Your task to perform on an android device: add a contact in the contacts app Image 0: 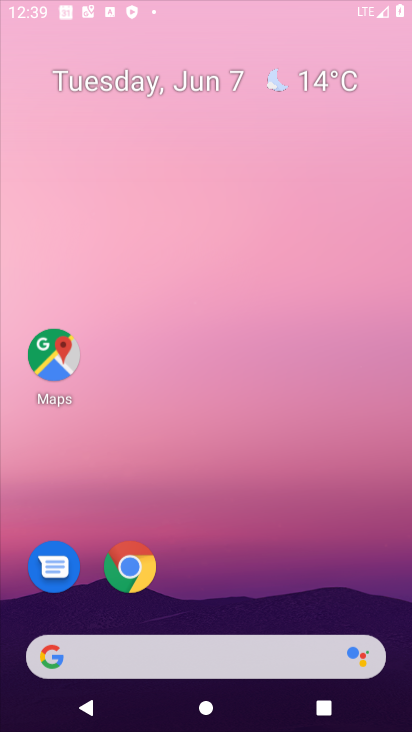
Step 0: press home button
Your task to perform on an android device: add a contact in the contacts app Image 1: 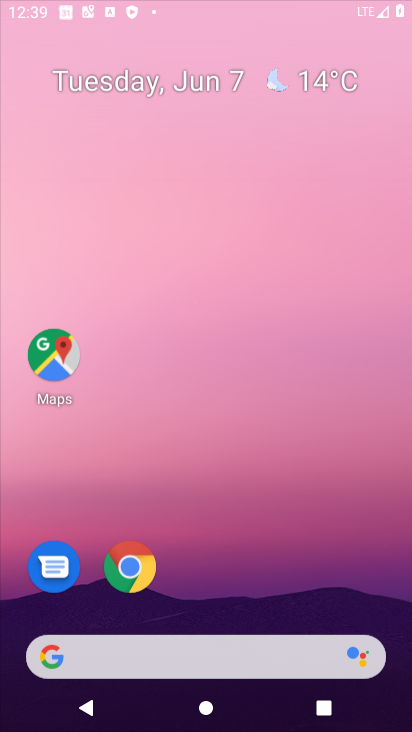
Step 1: click (337, 119)
Your task to perform on an android device: add a contact in the contacts app Image 2: 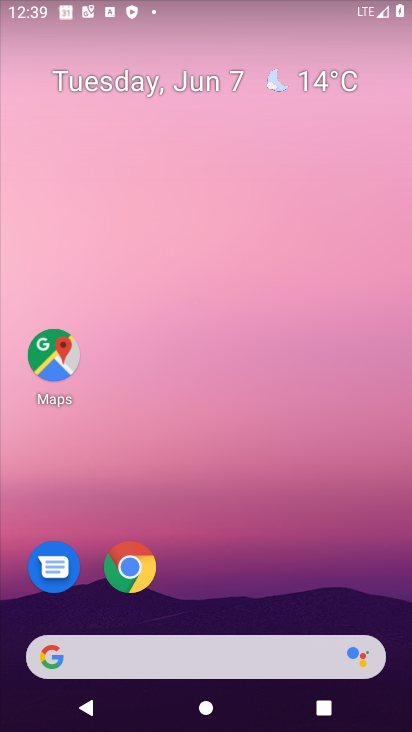
Step 2: drag from (285, 655) to (293, 233)
Your task to perform on an android device: add a contact in the contacts app Image 3: 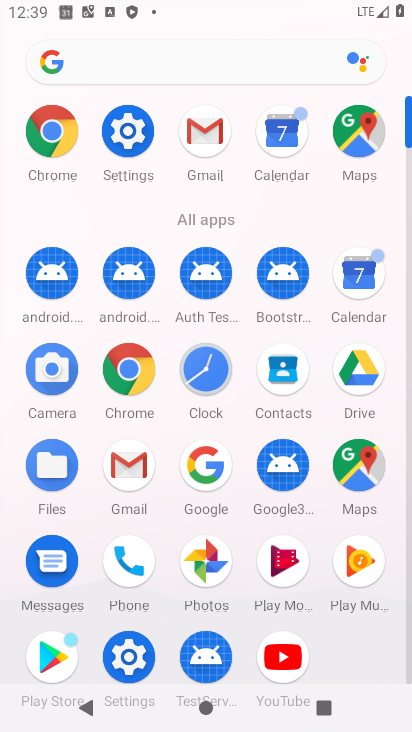
Step 3: click (296, 368)
Your task to perform on an android device: add a contact in the contacts app Image 4: 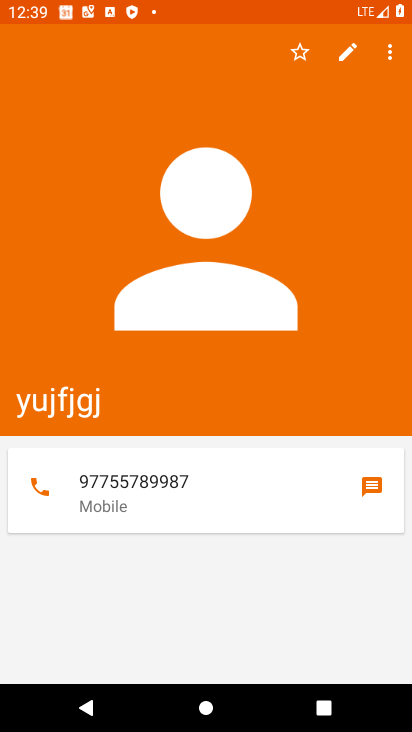
Step 4: press home button
Your task to perform on an android device: add a contact in the contacts app Image 5: 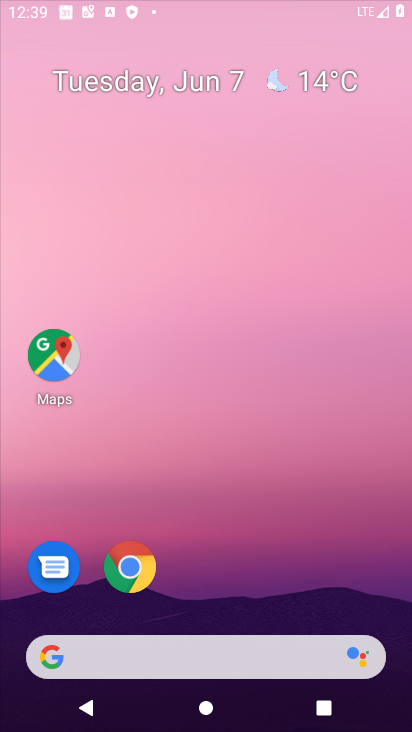
Step 5: drag from (275, 620) to (203, 88)
Your task to perform on an android device: add a contact in the contacts app Image 6: 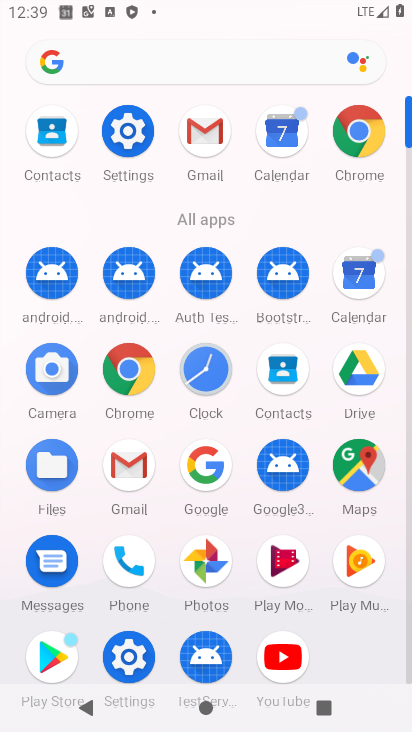
Step 6: click (303, 380)
Your task to perform on an android device: add a contact in the contacts app Image 7: 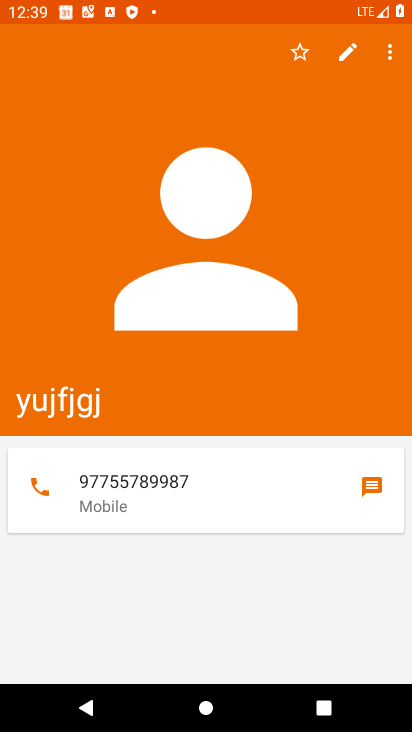
Step 7: press back button
Your task to perform on an android device: add a contact in the contacts app Image 8: 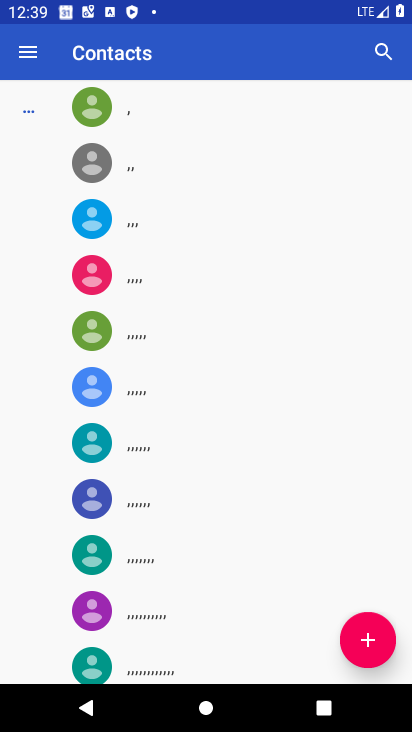
Step 8: click (354, 644)
Your task to perform on an android device: add a contact in the contacts app Image 9: 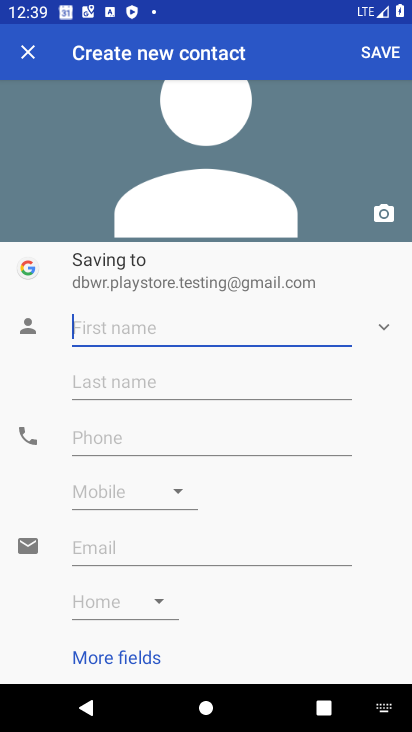
Step 9: type "jhjgyfjhj"
Your task to perform on an android device: add a contact in the contacts app Image 10: 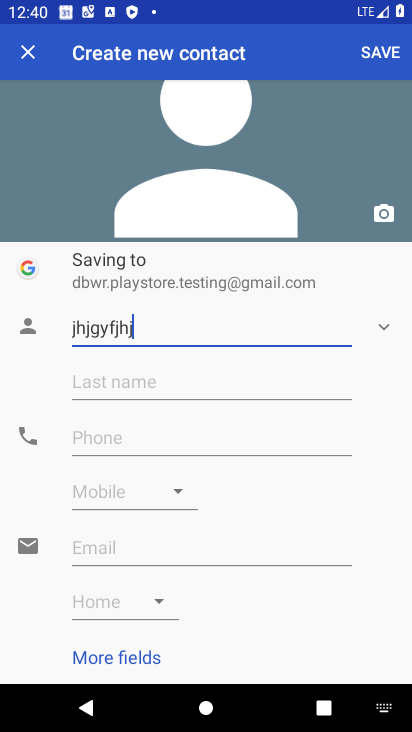
Step 10: click (183, 446)
Your task to perform on an android device: add a contact in the contacts app Image 11: 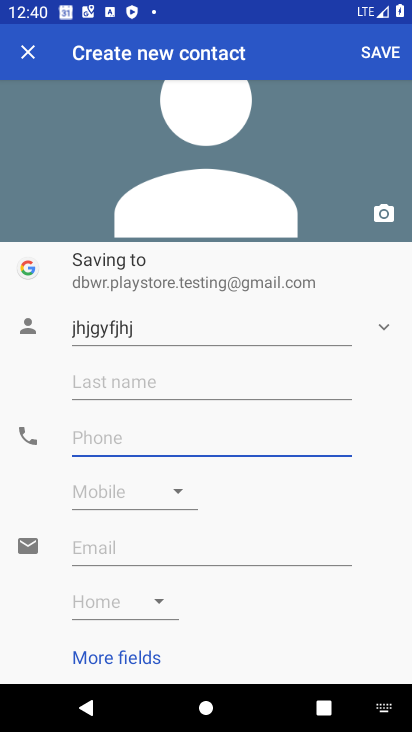
Step 11: type "98976677888"
Your task to perform on an android device: add a contact in the contacts app Image 12: 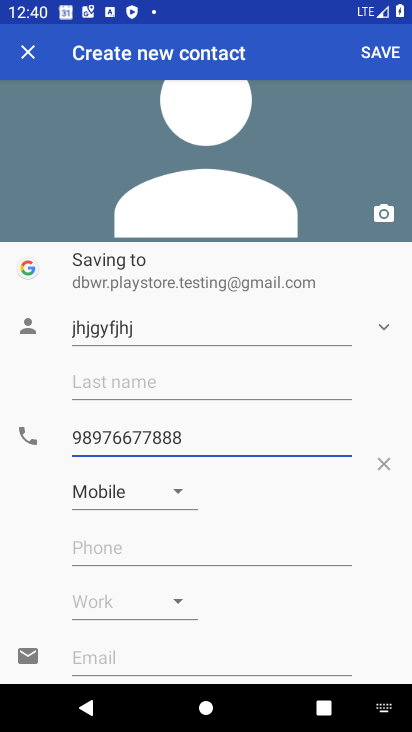
Step 12: click (376, 54)
Your task to perform on an android device: add a contact in the contacts app Image 13: 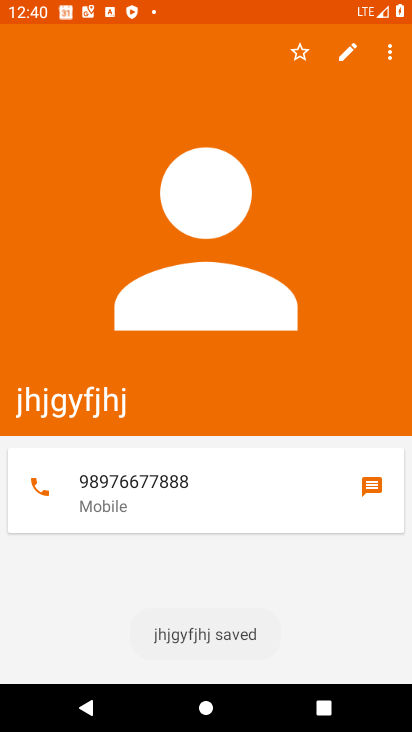
Step 13: task complete